Your task to perform on an android device: check battery use Image 0: 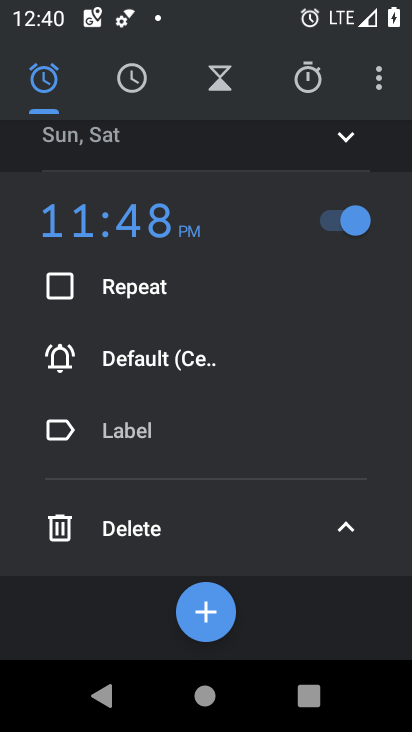
Step 0: press home button
Your task to perform on an android device: check battery use Image 1: 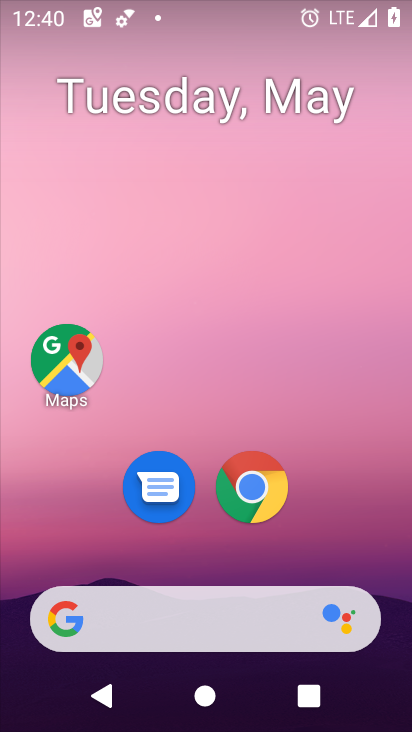
Step 1: drag from (4, 72) to (105, 177)
Your task to perform on an android device: check battery use Image 2: 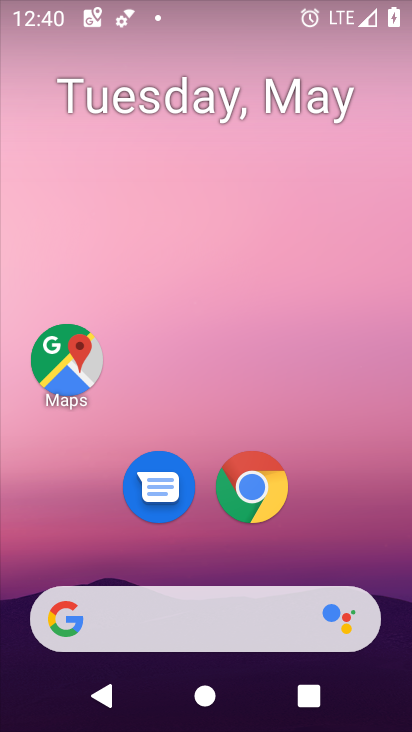
Step 2: drag from (62, 331) to (87, 256)
Your task to perform on an android device: check battery use Image 3: 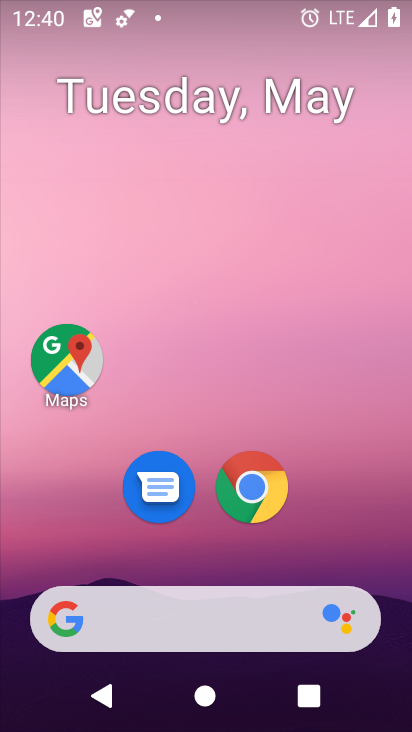
Step 3: drag from (53, 465) to (285, 130)
Your task to perform on an android device: check battery use Image 4: 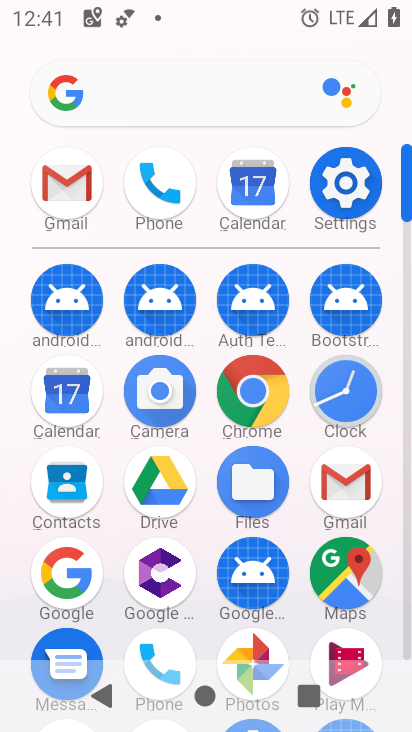
Step 4: click (353, 184)
Your task to perform on an android device: check battery use Image 5: 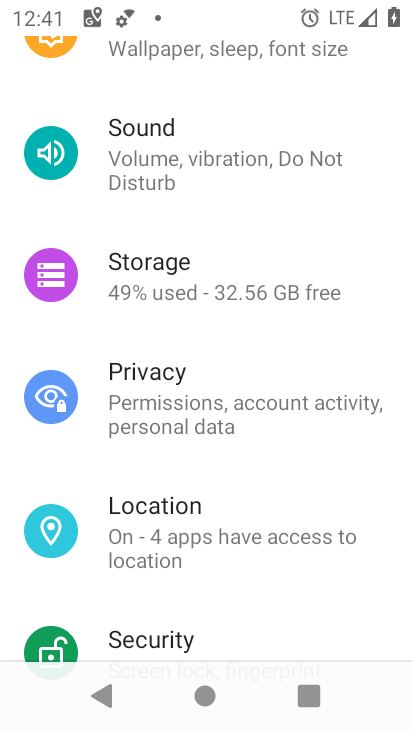
Step 5: drag from (11, 431) to (153, 191)
Your task to perform on an android device: check battery use Image 6: 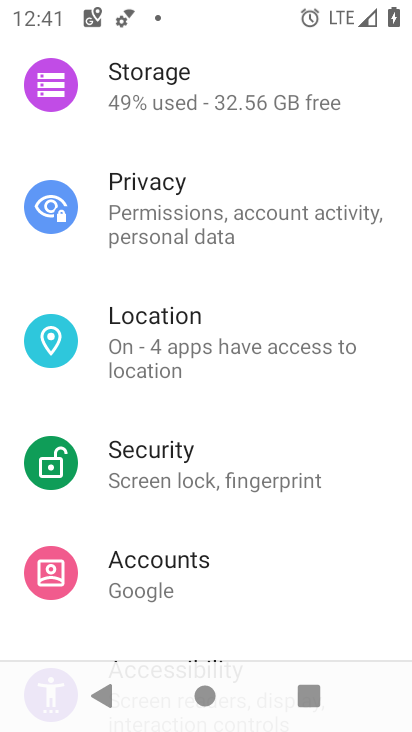
Step 6: drag from (63, 593) to (230, 203)
Your task to perform on an android device: check battery use Image 7: 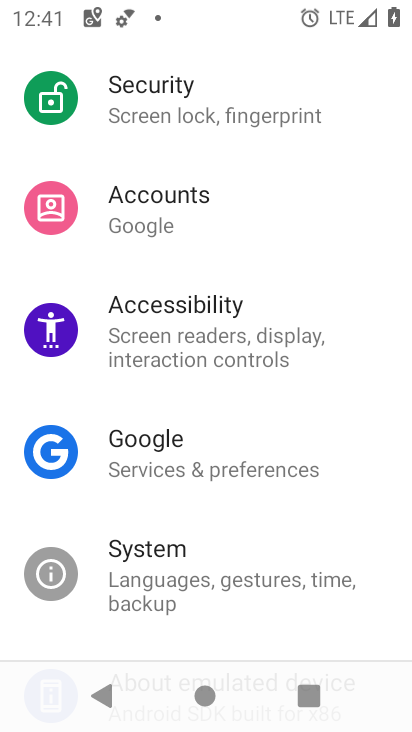
Step 7: drag from (243, 168) to (229, 622)
Your task to perform on an android device: check battery use Image 8: 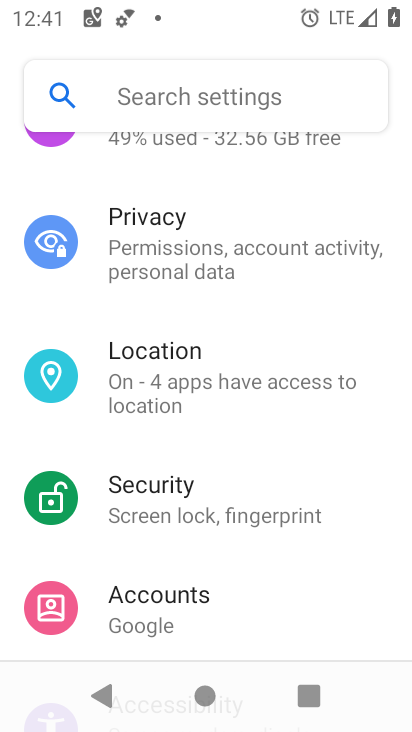
Step 8: drag from (255, 124) to (256, 409)
Your task to perform on an android device: check battery use Image 9: 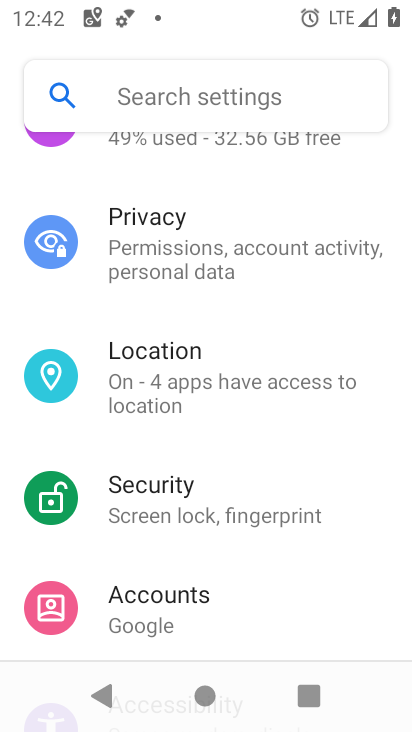
Step 9: drag from (49, 623) to (311, 69)
Your task to perform on an android device: check battery use Image 10: 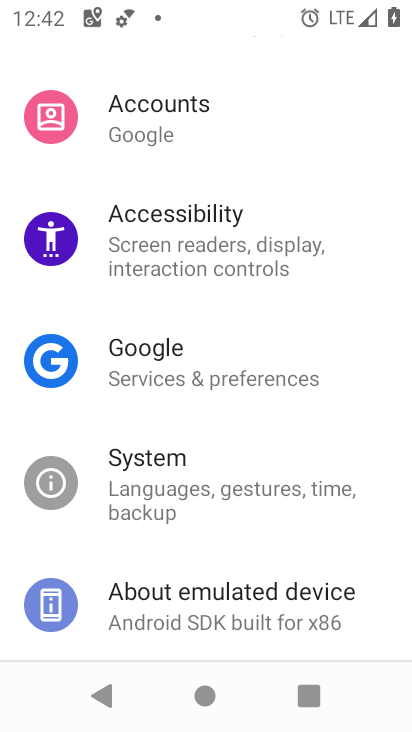
Step 10: drag from (24, 550) to (237, 100)
Your task to perform on an android device: check battery use Image 11: 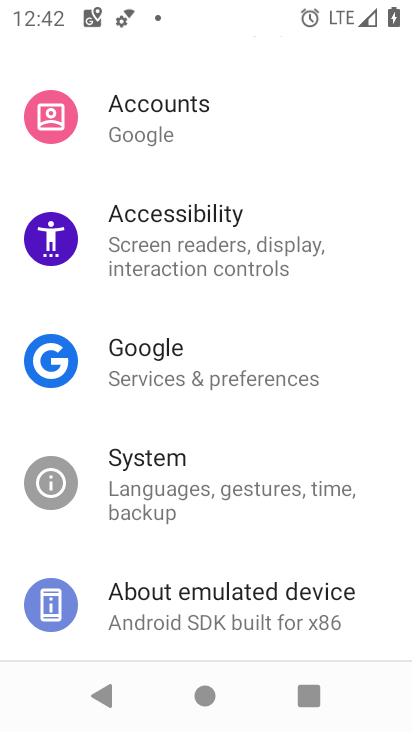
Step 11: drag from (218, 129) to (226, 626)
Your task to perform on an android device: check battery use Image 12: 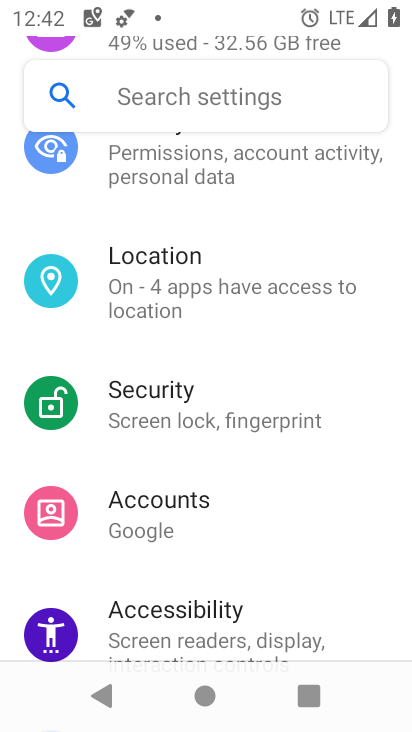
Step 12: drag from (220, 199) to (176, 640)
Your task to perform on an android device: check battery use Image 13: 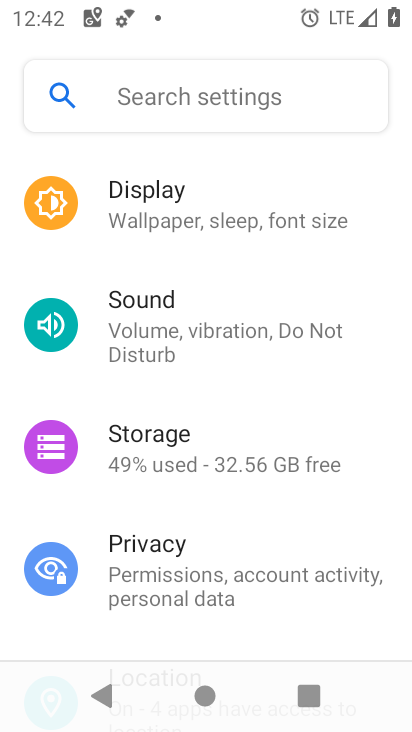
Step 13: drag from (210, 288) to (220, 570)
Your task to perform on an android device: check battery use Image 14: 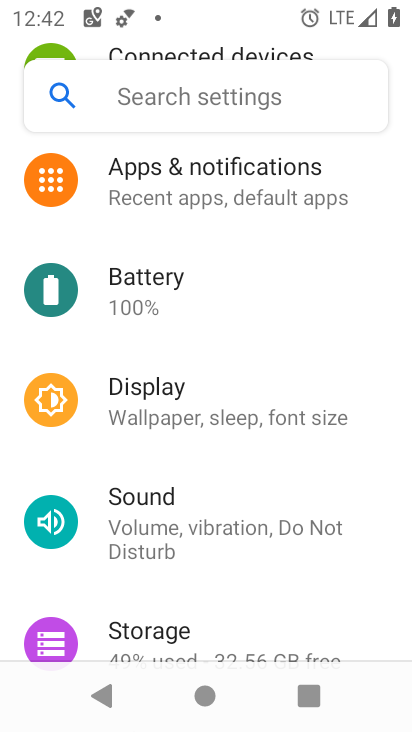
Step 14: click (194, 277)
Your task to perform on an android device: check battery use Image 15: 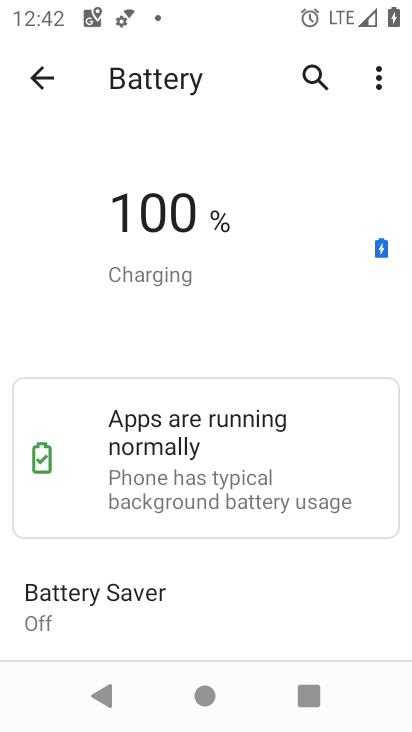
Step 15: task complete